Your task to perform on an android device: check data usage Image 0: 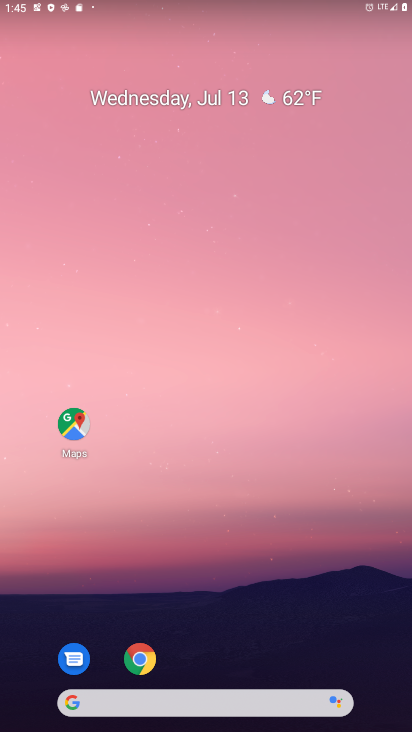
Step 0: drag from (219, 730) to (226, 122)
Your task to perform on an android device: check data usage Image 1: 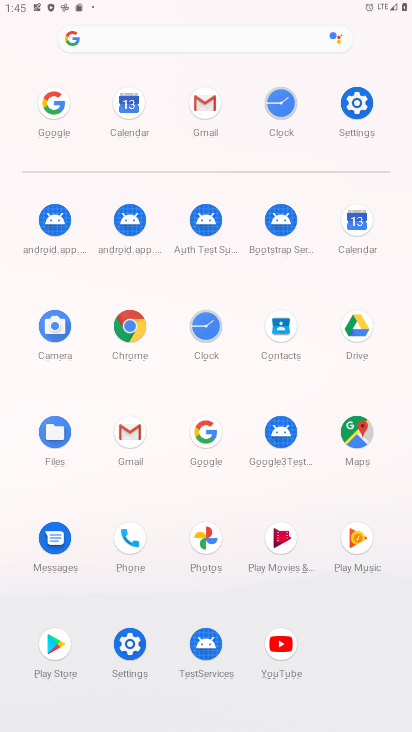
Step 1: click (352, 104)
Your task to perform on an android device: check data usage Image 2: 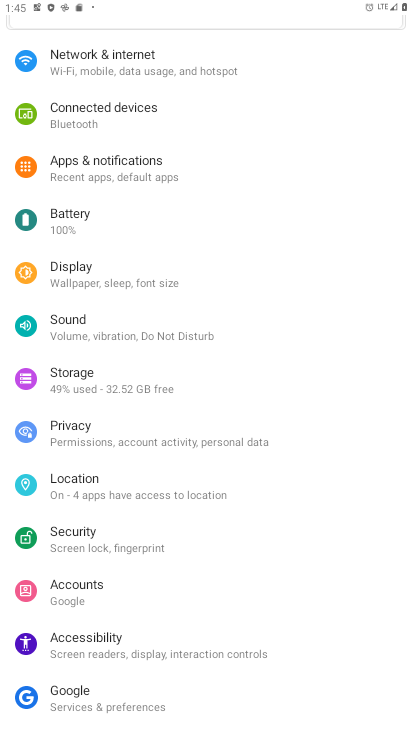
Step 2: click (106, 68)
Your task to perform on an android device: check data usage Image 3: 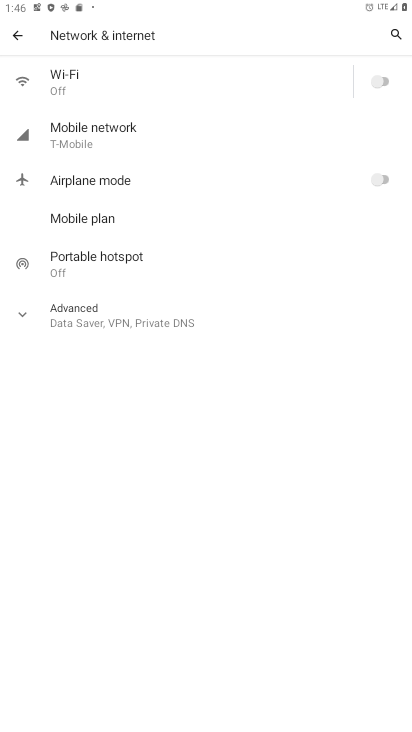
Step 3: click (83, 129)
Your task to perform on an android device: check data usage Image 4: 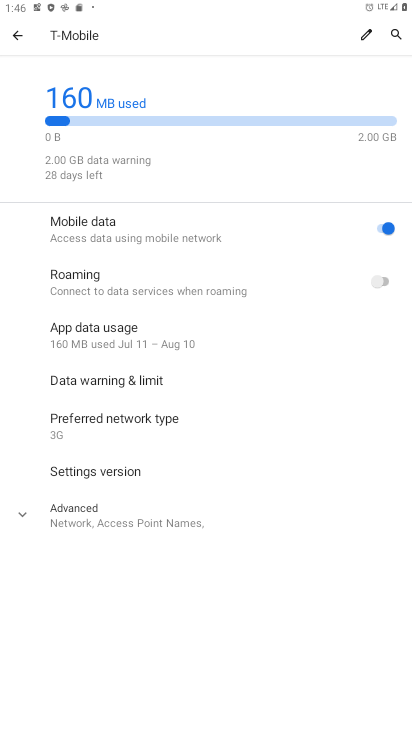
Step 4: click (91, 321)
Your task to perform on an android device: check data usage Image 5: 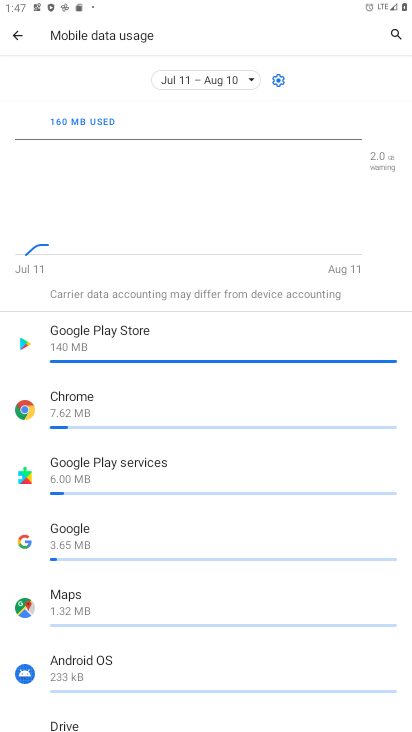
Step 5: task complete